Your task to perform on an android device: Open battery settings Image 0: 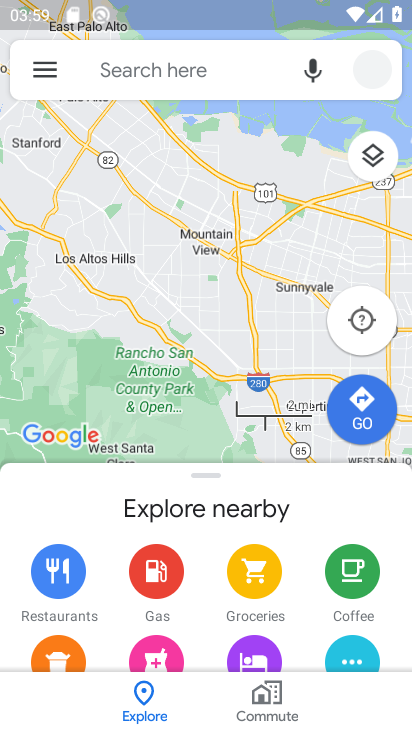
Step 0: press home button
Your task to perform on an android device: Open battery settings Image 1: 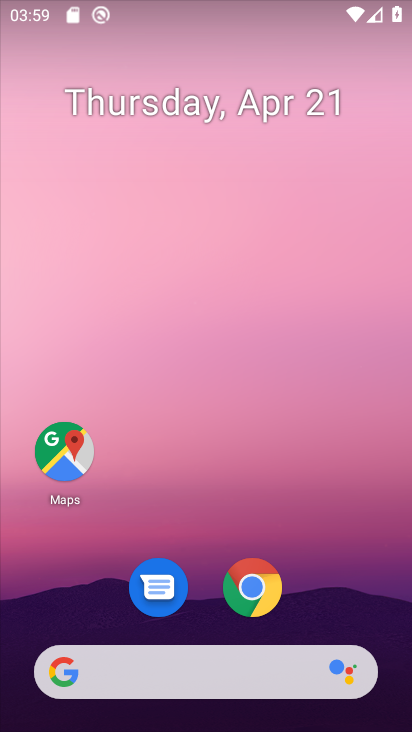
Step 1: drag from (340, 567) to (336, 196)
Your task to perform on an android device: Open battery settings Image 2: 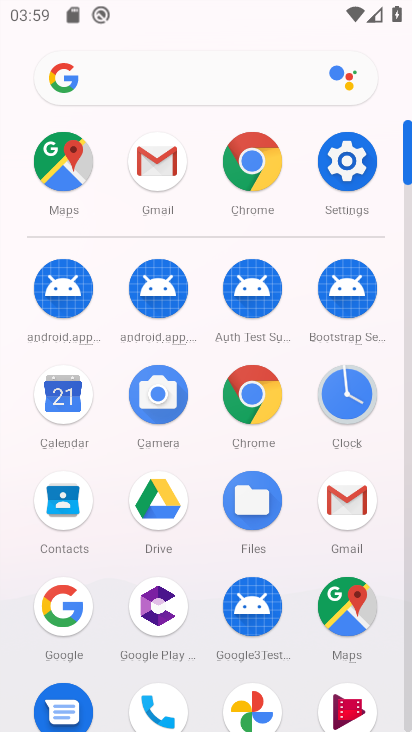
Step 2: click (351, 162)
Your task to perform on an android device: Open battery settings Image 3: 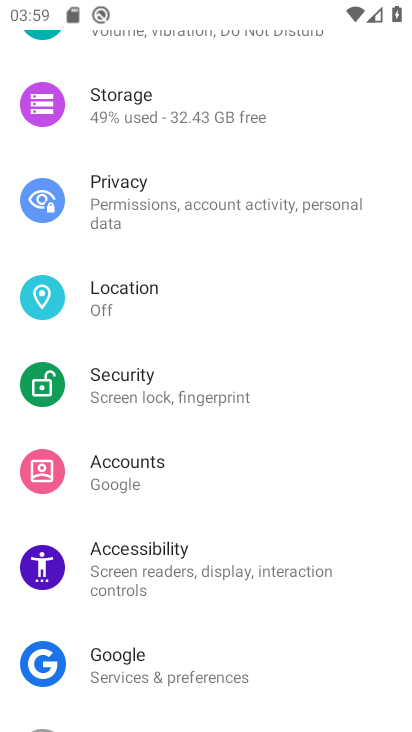
Step 3: drag from (323, 610) to (337, 444)
Your task to perform on an android device: Open battery settings Image 4: 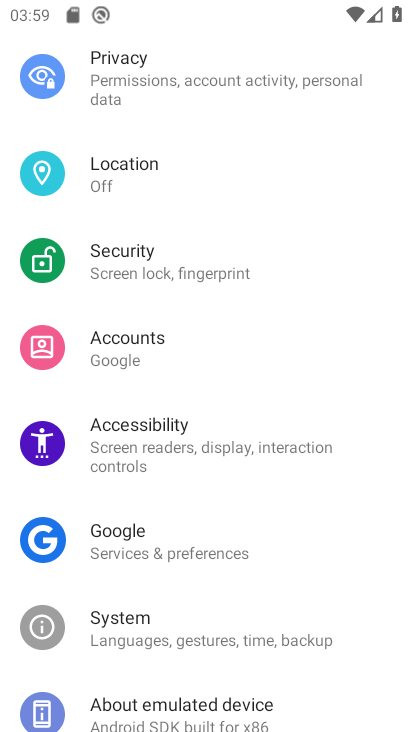
Step 4: drag from (323, 556) to (318, 377)
Your task to perform on an android device: Open battery settings Image 5: 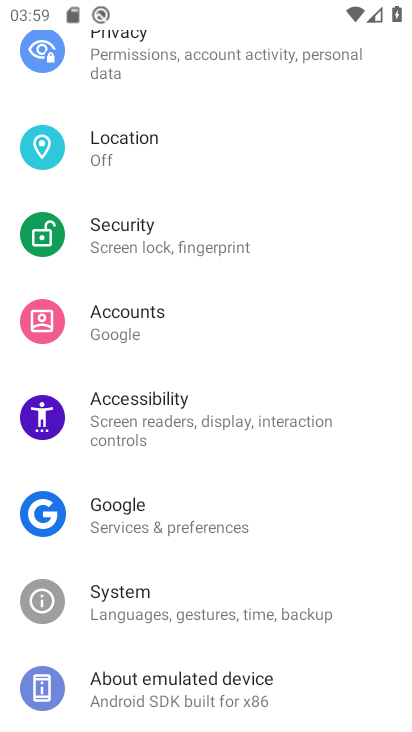
Step 5: drag from (346, 337) to (325, 473)
Your task to perform on an android device: Open battery settings Image 6: 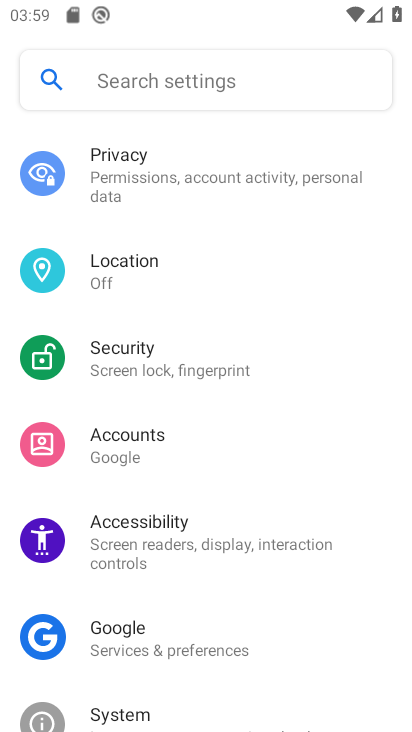
Step 6: drag from (325, 322) to (327, 479)
Your task to perform on an android device: Open battery settings Image 7: 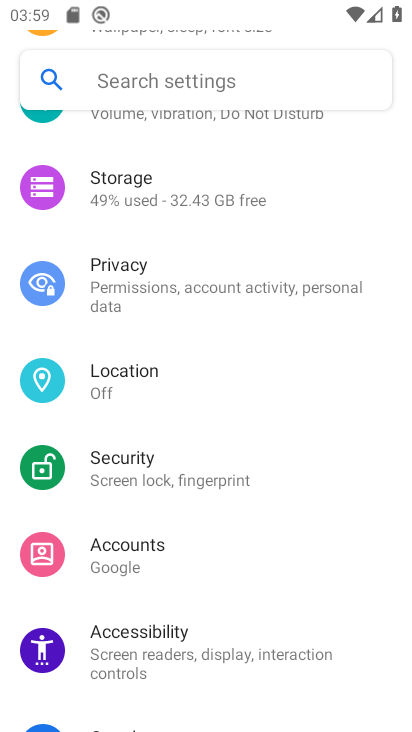
Step 7: drag from (314, 363) to (306, 488)
Your task to perform on an android device: Open battery settings Image 8: 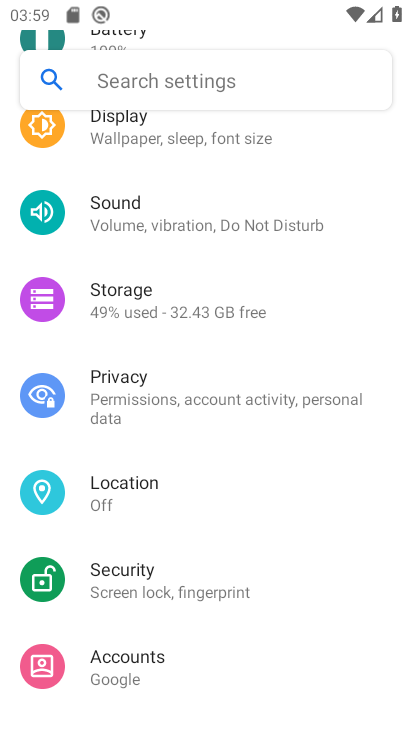
Step 8: drag from (317, 334) to (314, 486)
Your task to perform on an android device: Open battery settings Image 9: 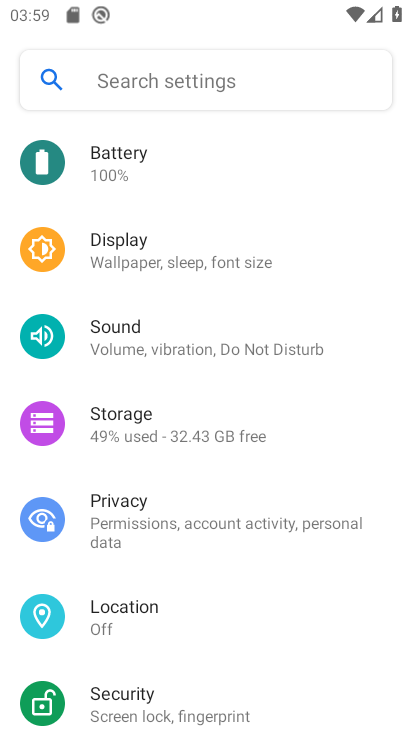
Step 9: drag from (350, 286) to (350, 442)
Your task to perform on an android device: Open battery settings Image 10: 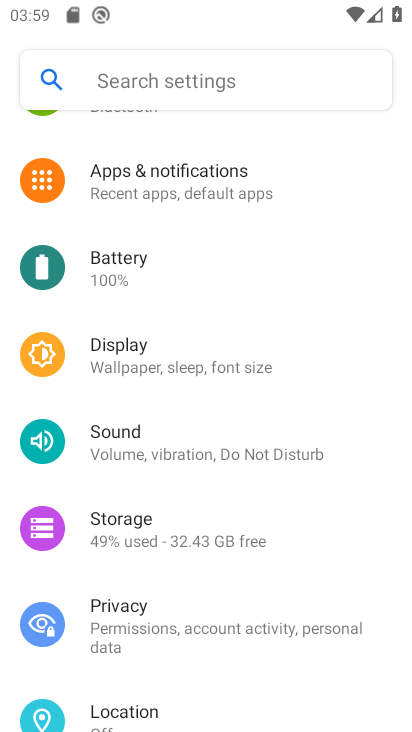
Step 10: click (131, 270)
Your task to perform on an android device: Open battery settings Image 11: 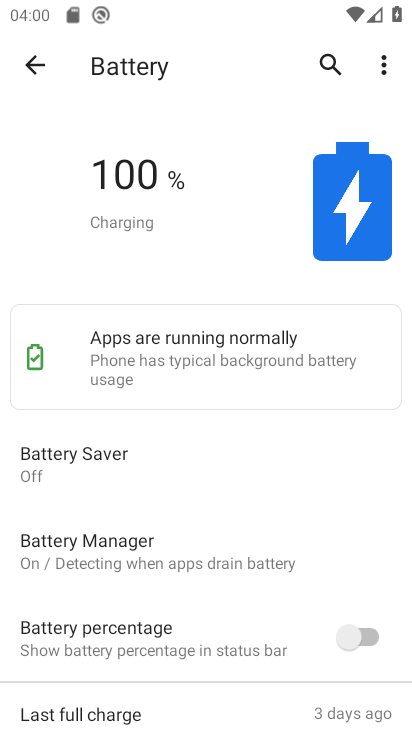
Step 11: task complete